Your task to perform on an android device: Empty the shopping cart on walmart. Add "apple airpods pro" to the cart on walmart Image 0: 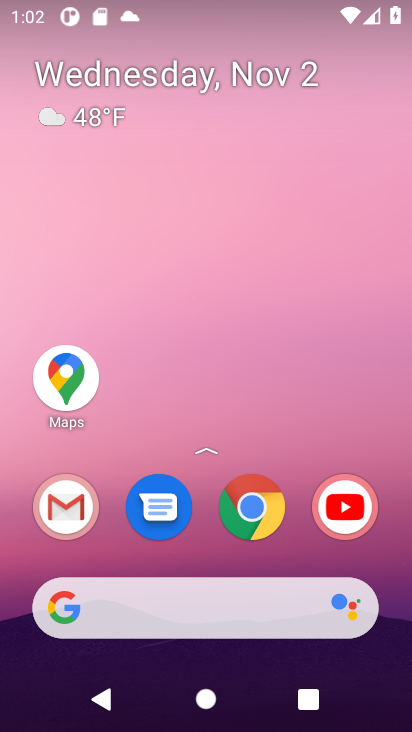
Step 0: click (253, 598)
Your task to perform on an android device: Empty the shopping cart on walmart. Add "apple airpods pro" to the cart on walmart Image 1: 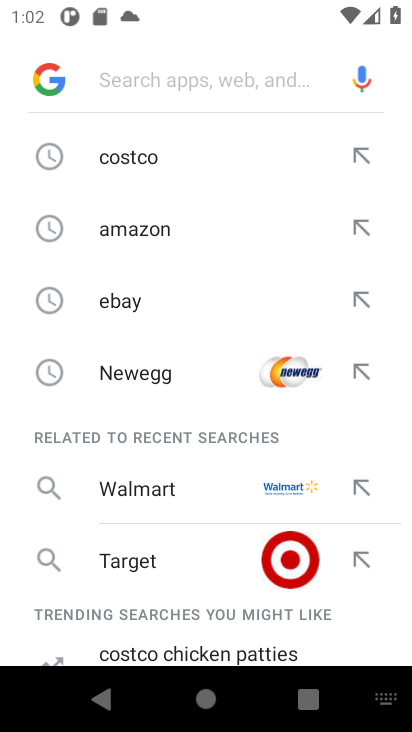
Step 1: type "walmart"
Your task to perform on an android device: Empty the shopping cart on walmart. Add "apple airpods pro" to the cart on walmart Image 2: 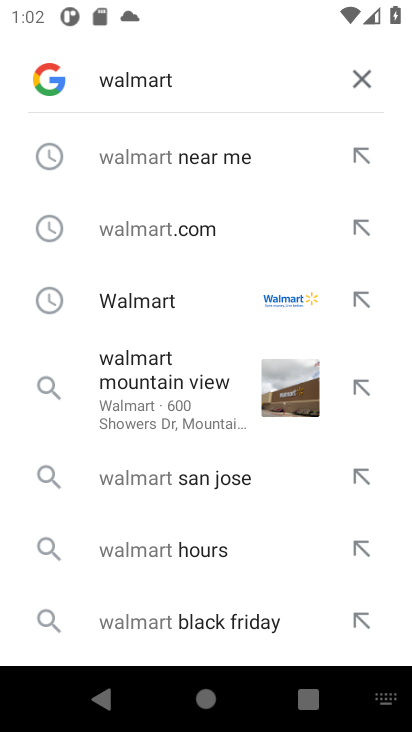
Step 2: type ""
Your task to perform on an android device: Empty the shopping cart on walmart. Add "apple airpods pro" to the cart on walmart Image 3: 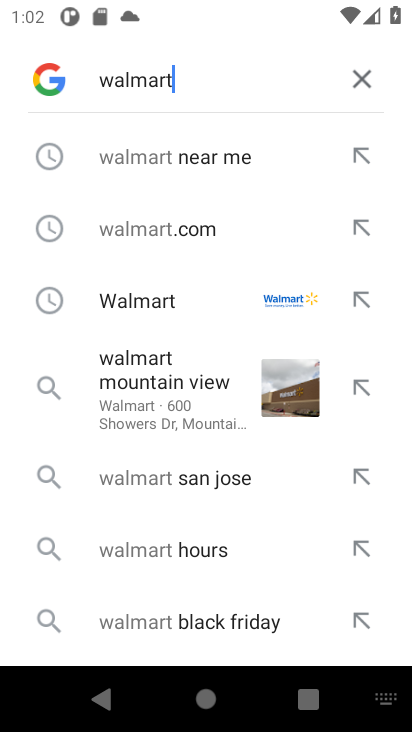
Step 3: click (168, 292)
Your task to perform on an android device: Empty the shopping cart on walmart. Add "apple airpods pro" to the cart on walmart Image 4: 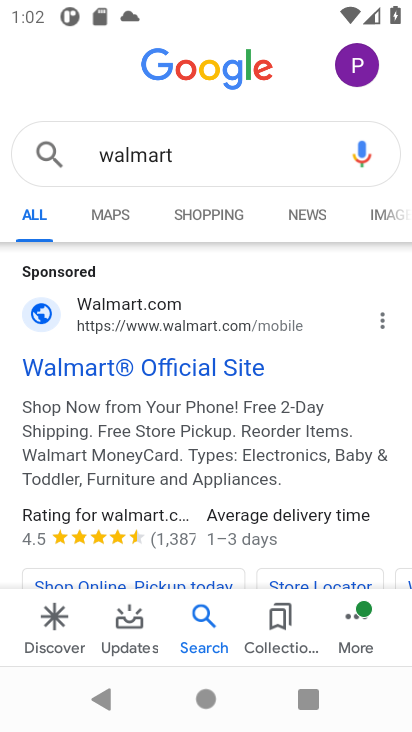
Step 4: click (115, 361)
Your task to perform on an android device: Empty the shopping cart on walmart. Add "apple airpods pro" to the cart on walmart Image 5: 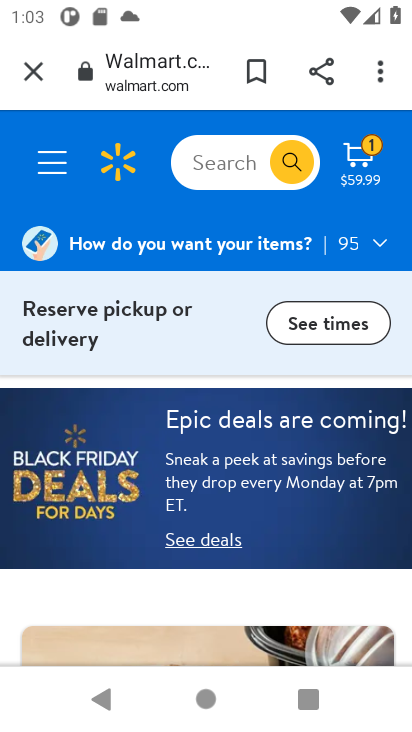
Step 5: click (206, 160)
Your task to perform on an android device: Empty the shopping cart on walmart. Add "apple airpods pro" to the cart on walmart Image 6: 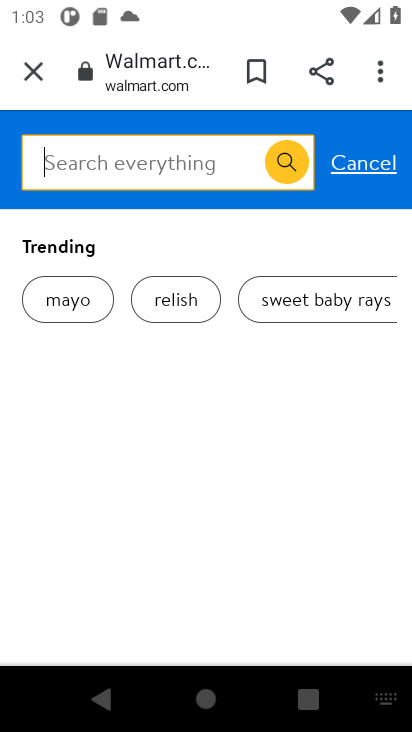
Step 6: type "apple airpods pro"
Your task to perform on an android device: Empty the shopping cart on walmart. Add "apple airpods pro" to the cart on walmart Image 7: 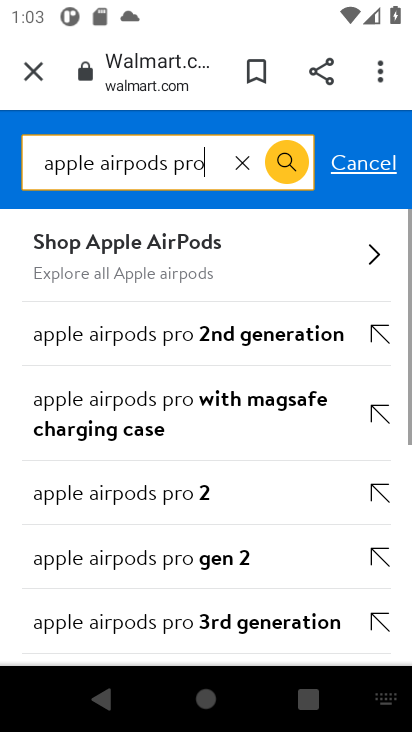
Step 7: type ""
Your task to perform on an android device: Empty the shopping cart on walmart. Add "apple airpods pro" to the cart on walmart Image 8: 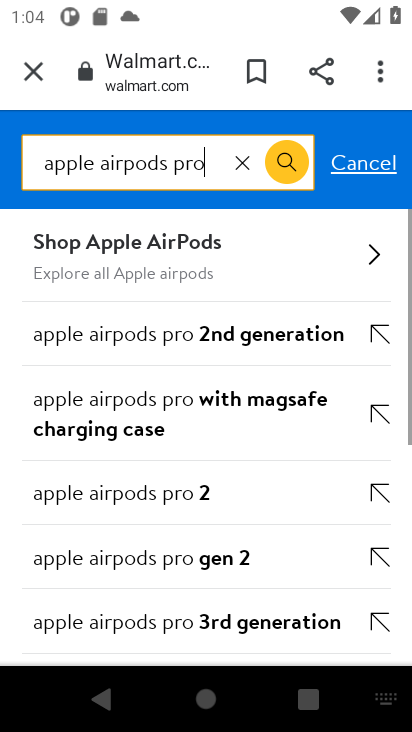
Step 8: click (296, 166)
Your task to perform on an android device: Empty the shopping cart on walmart. Add "apple airpods pro" to the cart on walmart Image 9: 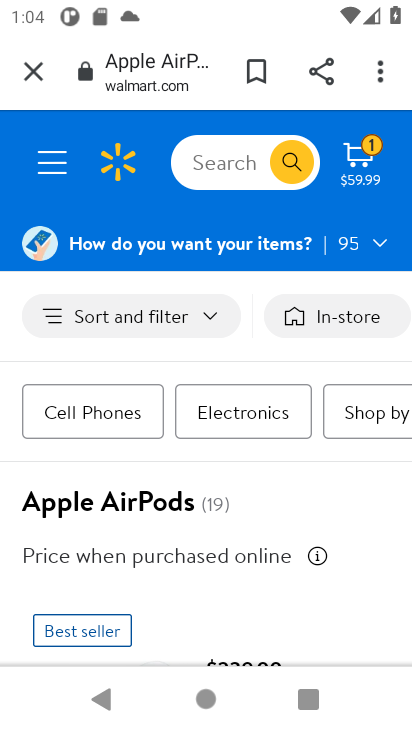
Step 9: drag from (297, 593) to (317, 207)
Your task to perform on an android device: Empty the shopping cart on walmart. Add "apple airpods pro" to the cart on walmart Image 10: 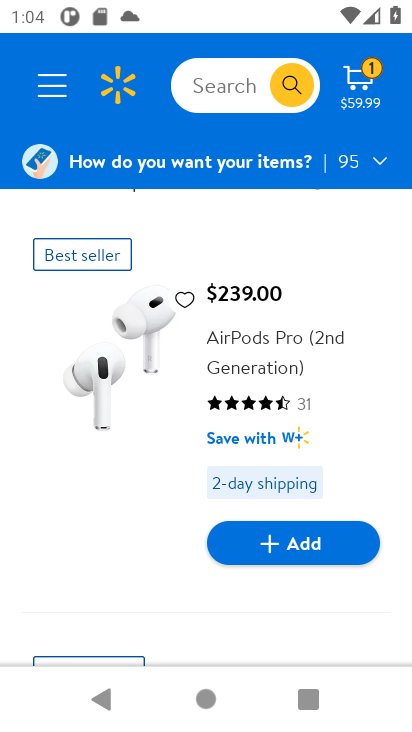
Step 10: click (289, 543)
Your task to perform on an android device: Empty the shopping cart on walmart. Add "apple airpods pro" to the cart on walmart Image 11: 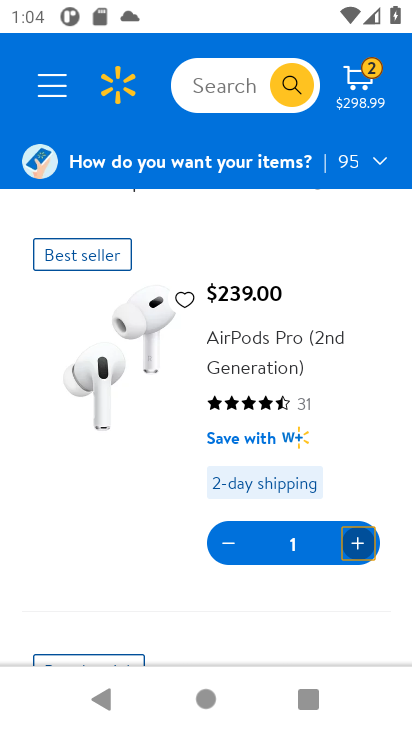
Step 11: task complete